Your task to perform on an android device: delete the emails in spam in the gmail app Image 0: 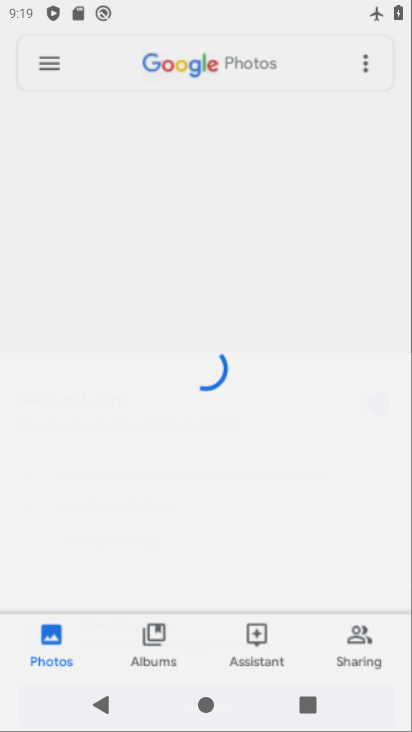
Step 0: drag from (184, 632) to (234, 89)
Your task to perform on an android device: delete the emails in spam in the gmail app Image 1: 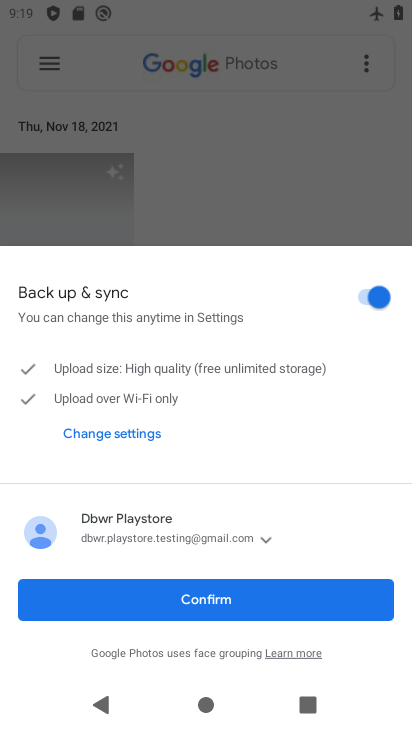
Step 1: press home button
Your task to perform on an android device: delete the emails in spam in the gmail app Image 2: 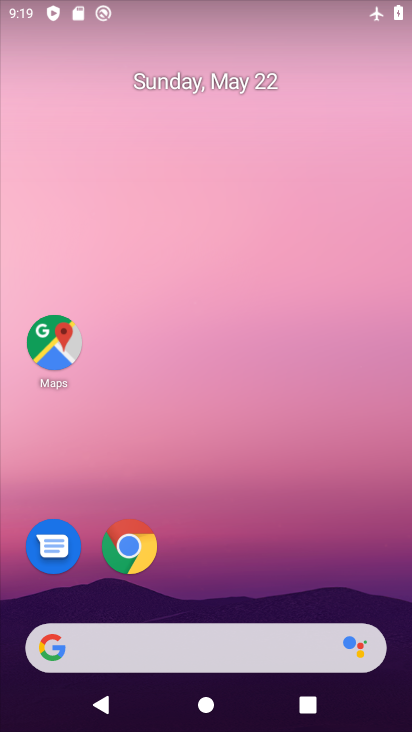
Step 2: drag from (217, 623) to (234, 150)
Your task to perform on an android device: delete the emails in spam in the gmail app Image 3: 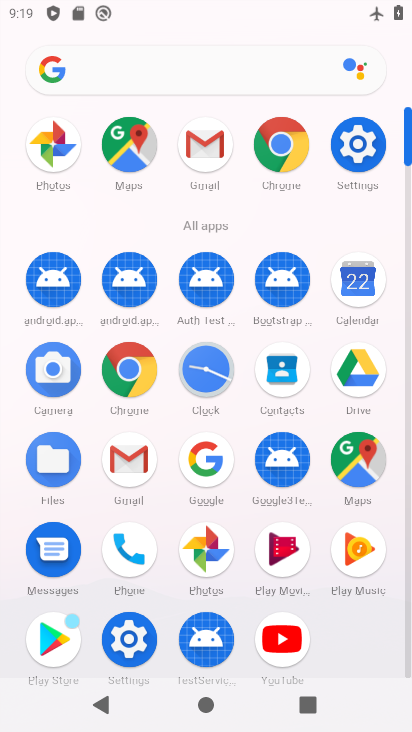
Step 3: click (209, 133)
Your task to perform on an android device: delete the emails in spam in the gmail app Image 4: 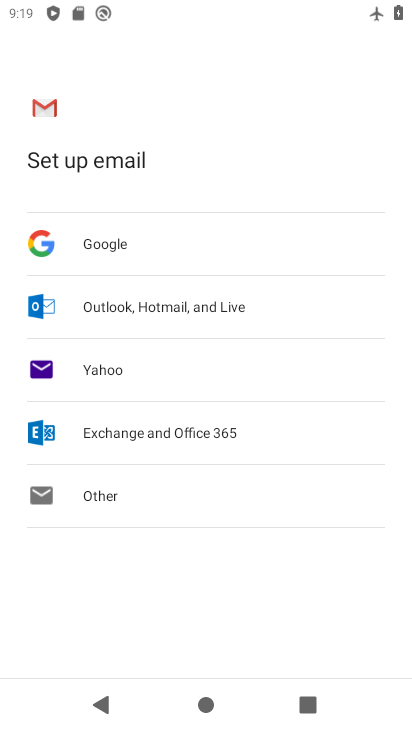
Step 4: press home button
Your task to perform on an android device: delete the emails in spam in the gmail app Image 5: 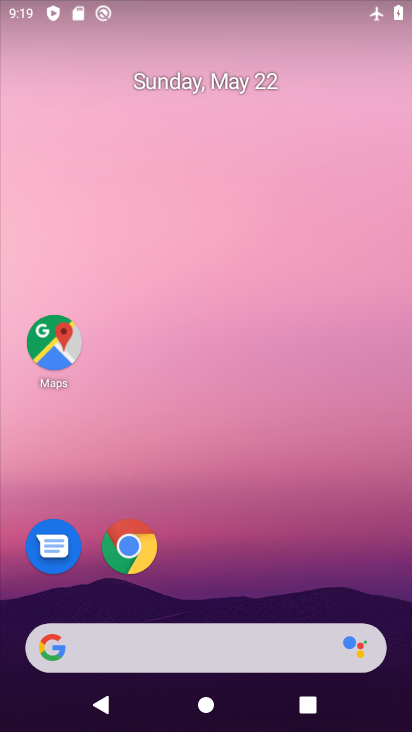
Step 5: drag from (136, 650) to (143, 364)
Your task to perform on an android device: delete the emails in spam in the gmail app Image 6: 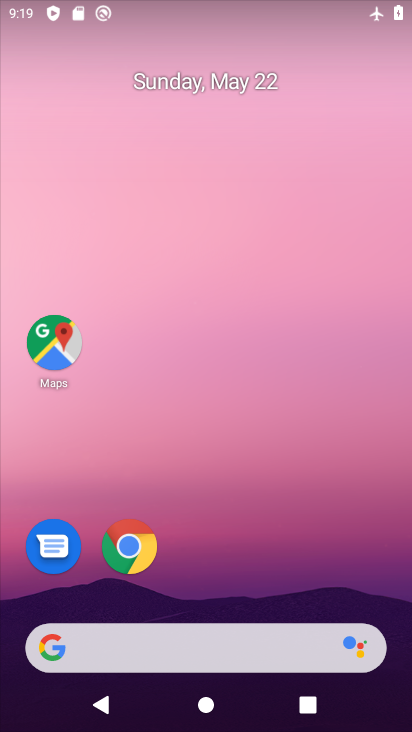
Step 6: drag from (190, 634) to (172, 158)
Your task to perform on an android device: delete the emails in spam in the gmail app Image 7: 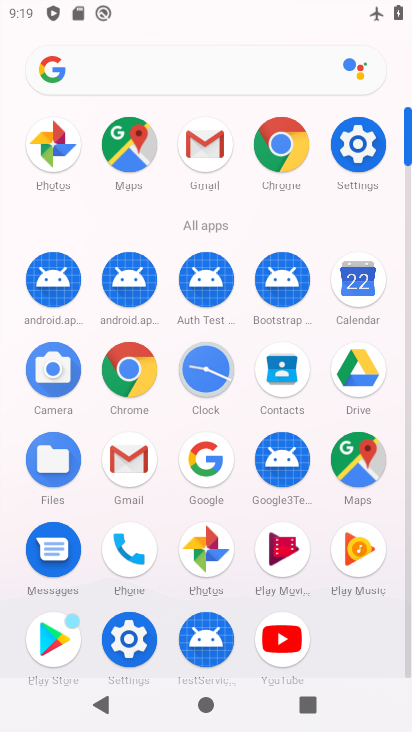
Step 7: click (207, 173)
Your task to perform on an android device: delete the emails in spam in the gmail app Image 8: 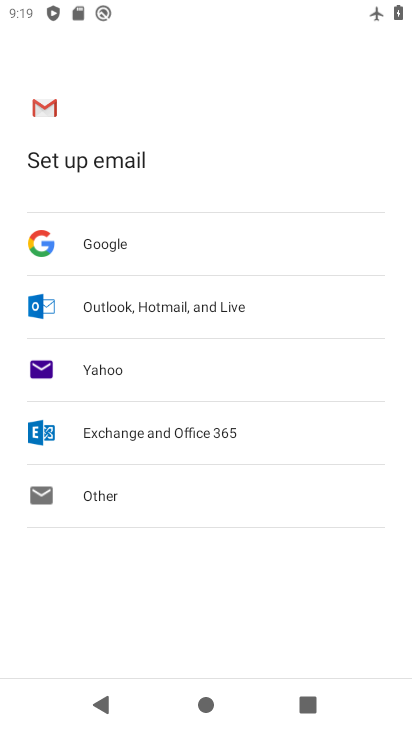
Step 8: click (158, 249)
Your task to perform on an android device: delete the emails in spam in the gmail app Image 9: 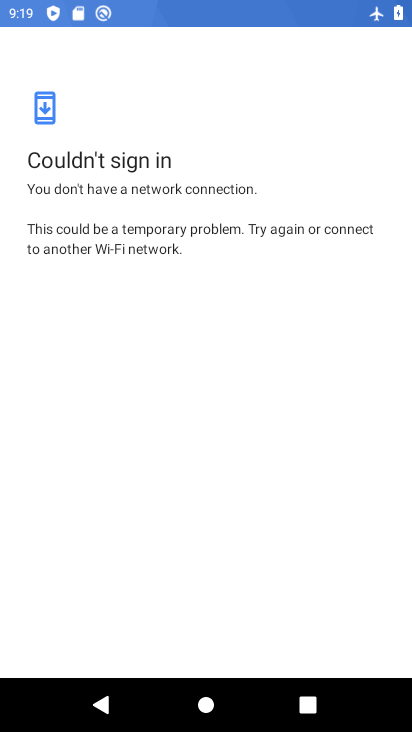
Step 9: task complete